Your task to perform on an android device: Is it going to rain today? Image 0: 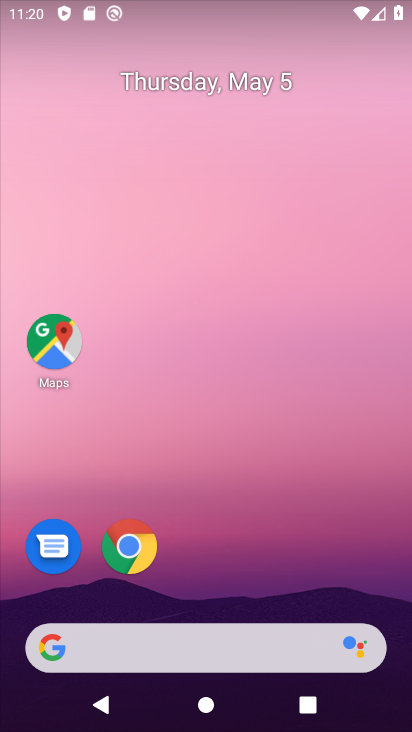
Step 0: click (267, 655)
Your task to perform on an android device: Is it going to rain today? Image 1: 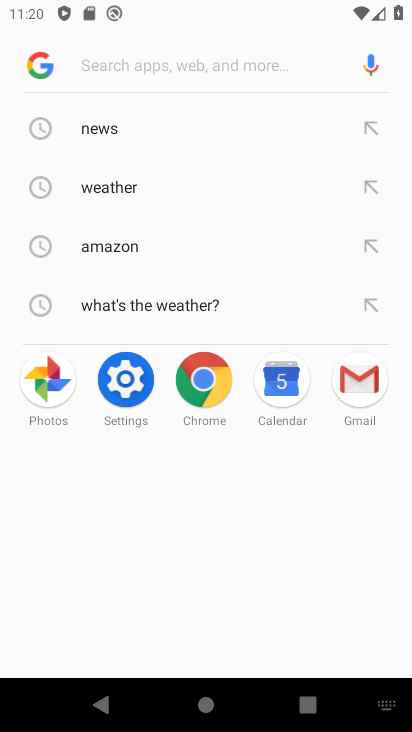
Step 1: click (132, 125)
Your task to perform on an android device: Is it going to rain today? Image 2: 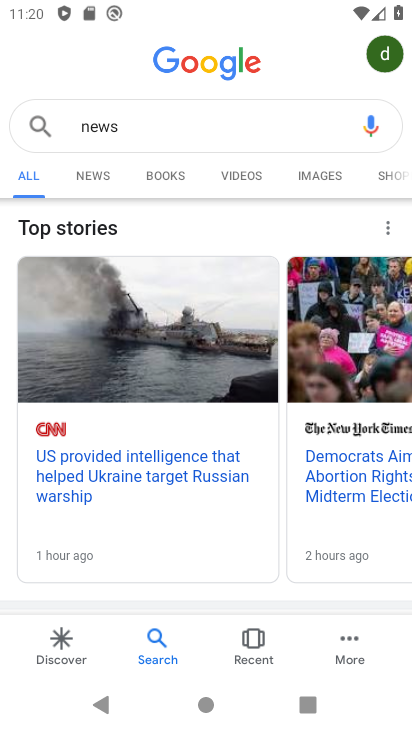
Step 2: task complete